Your task to perform on an android device: open app "Move to iOS" Image 0: 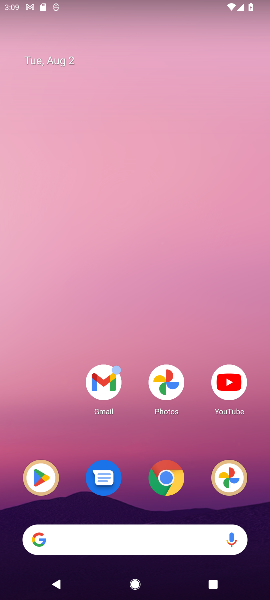
Step 0: drag from (180, 483) to (83, 105)
Your task to perform on an android device: open app "Move to iOS" Image 1: 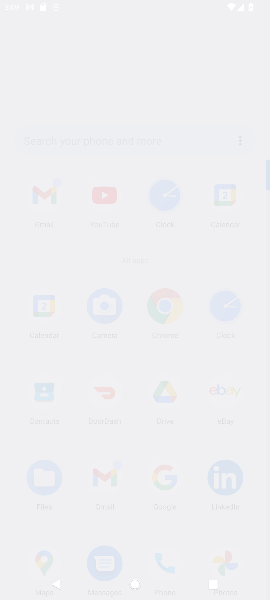
Step 1: drag from (95, 335) to (61, 76)
Your task to perform on an android device: open app "Move to iOS" Image 2: 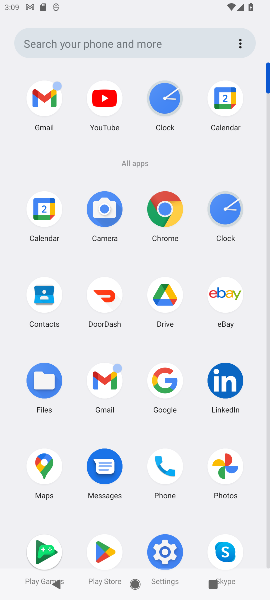
Step 2: drag from (155, 385) to (105, 42)
Your task to perform on an android device: open app "Move to iOS" Image 3: 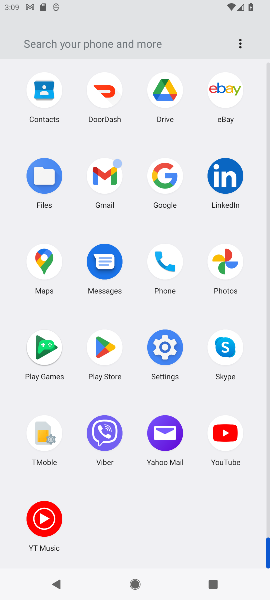
Step 3: click (98, 343)
Your task to perform on an android device: open app "Move to iOS" Image 4: 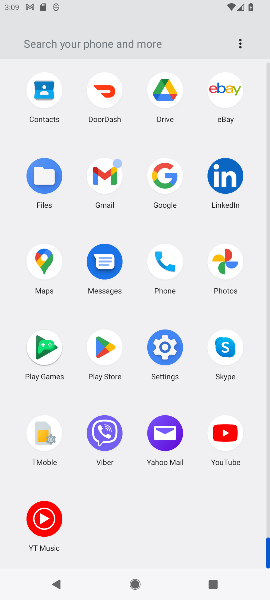
Step 4: click (98, 343)
Your task to perform on an android device: open app "Move to iOS" Image 5: 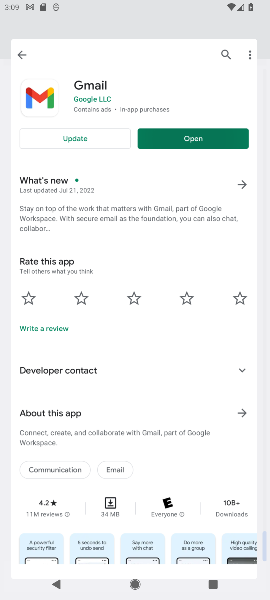
Step 5: click (105, 345)
Your task to perform on an android device: open app "Move to iOS" Image 6: 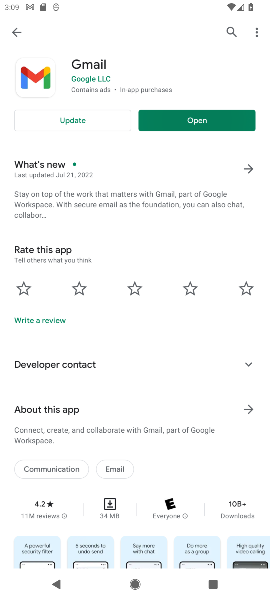
Step 6: click (107, 345)
Your task to perform on an android device: open app "Move to iOS" Image 7: 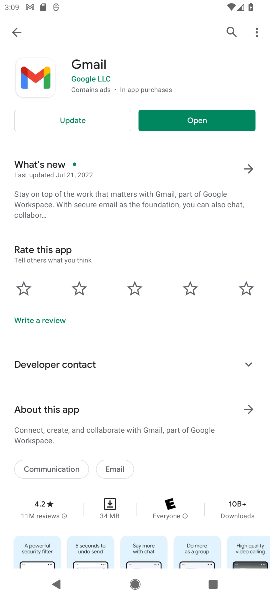
Step 7: click (108, 345)
Your task to perform on an android device: open app "Move to iOS" Image 8: 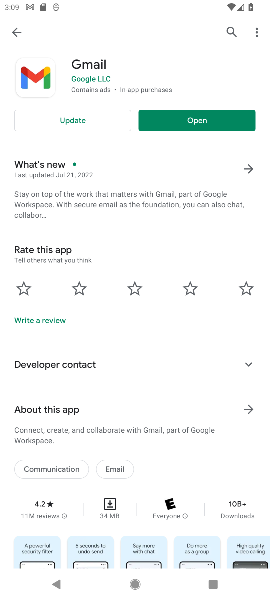
Step 8: click (15, 31)
Your task to perform on an android device: open app "Move to iOS" Image 9: 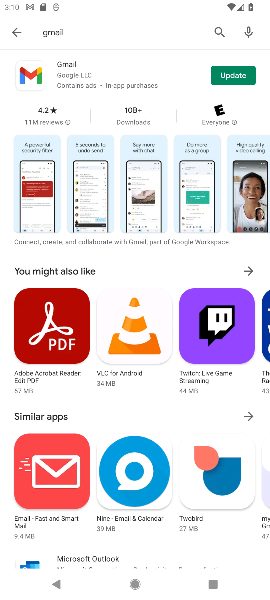
Step 9: click (16, 30)
Your task to perform on an android device: open app "Move to iOS" Image 10: 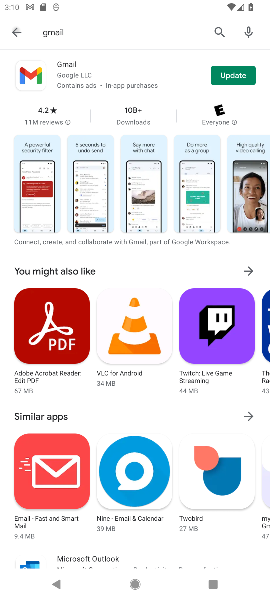
Step 10: click (16, 30)
Your task to perform on an android device: open app "Move to iOS" Image 11: 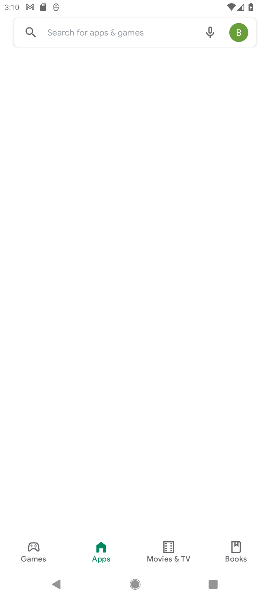
Step 11: click (16, 30)
Your task to perform on an android device: open app "Move to iOS" Image 12: 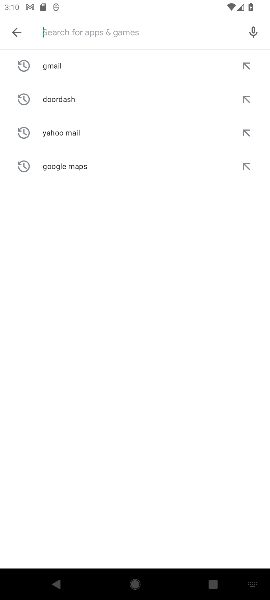
Step 12: type "move to ios"
Your task to perform on an android device: open app "Move to iOS" Image 13: 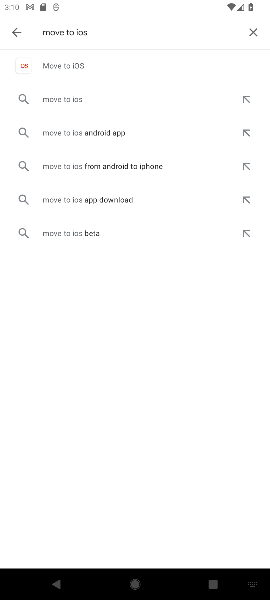
Step 13: click (78, 58)
Your task to perform on an android device: open app "Move to iOS" Image 14: 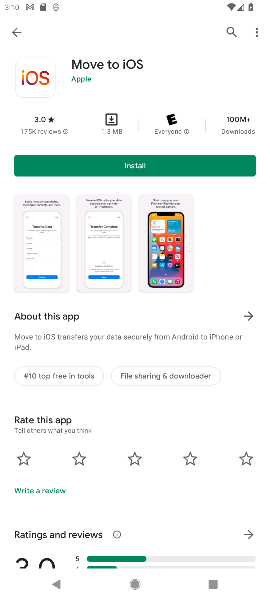
Step 14: click (142, 164)
Your task to perform on an android device: open app "Move to iOS" Image 15: 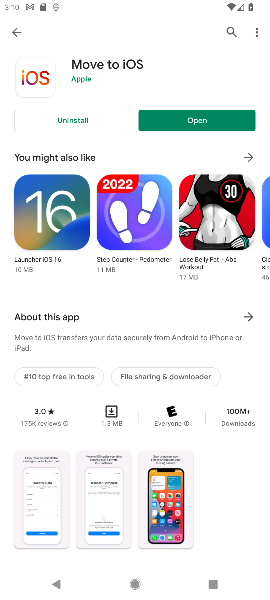
Step 15: click (198, 116)
Your task to perform on an android device: open app "Move to iOS" Image 16: 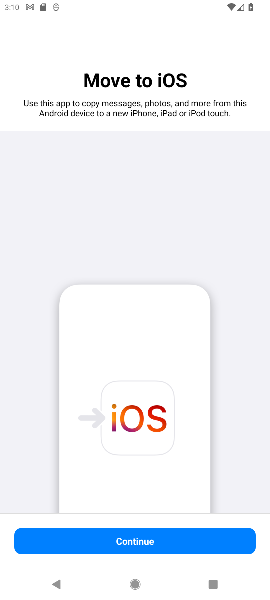
Step 16: click (153, 536)
Your task to perform on an android device: open app "Move to iOS" Image 17: 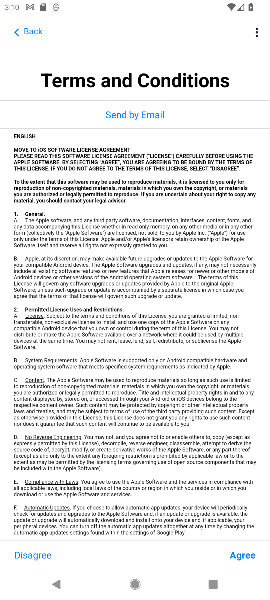
Step 17: click (239, 557)
Your task to perform on an android device: open app "Move to iOS" Image 18: 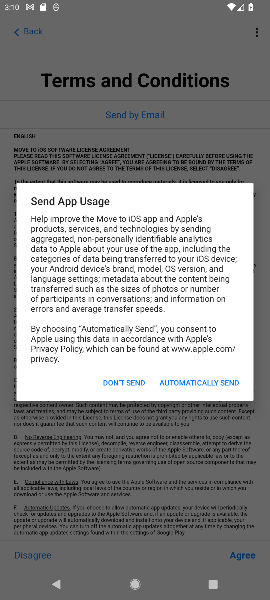
Step 18: click (181, 378)
Your task to perform on an android device: open app "Move to iOS" Image 19: 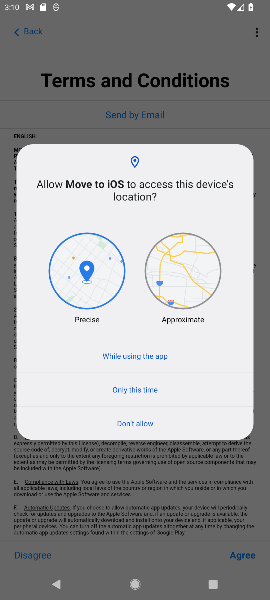
Step 19: click (220, 87)
Your task to perform on an android device: open app "Move to iOS" Image 20: 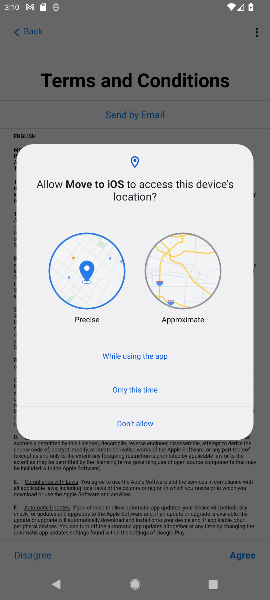
Step 20: click (226, 121)
Your task to perform on an android device: open app "Move to iOS" Image 21: 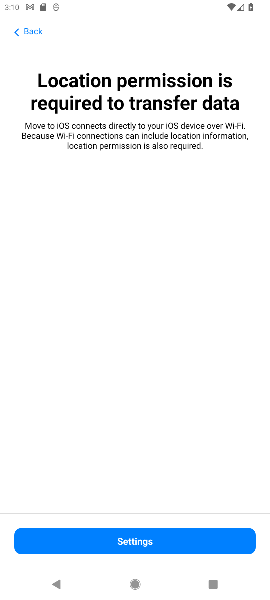
Step 21: task complete